Your task to perform on an android device: Clear the shopping cart on walmart. Image 0: 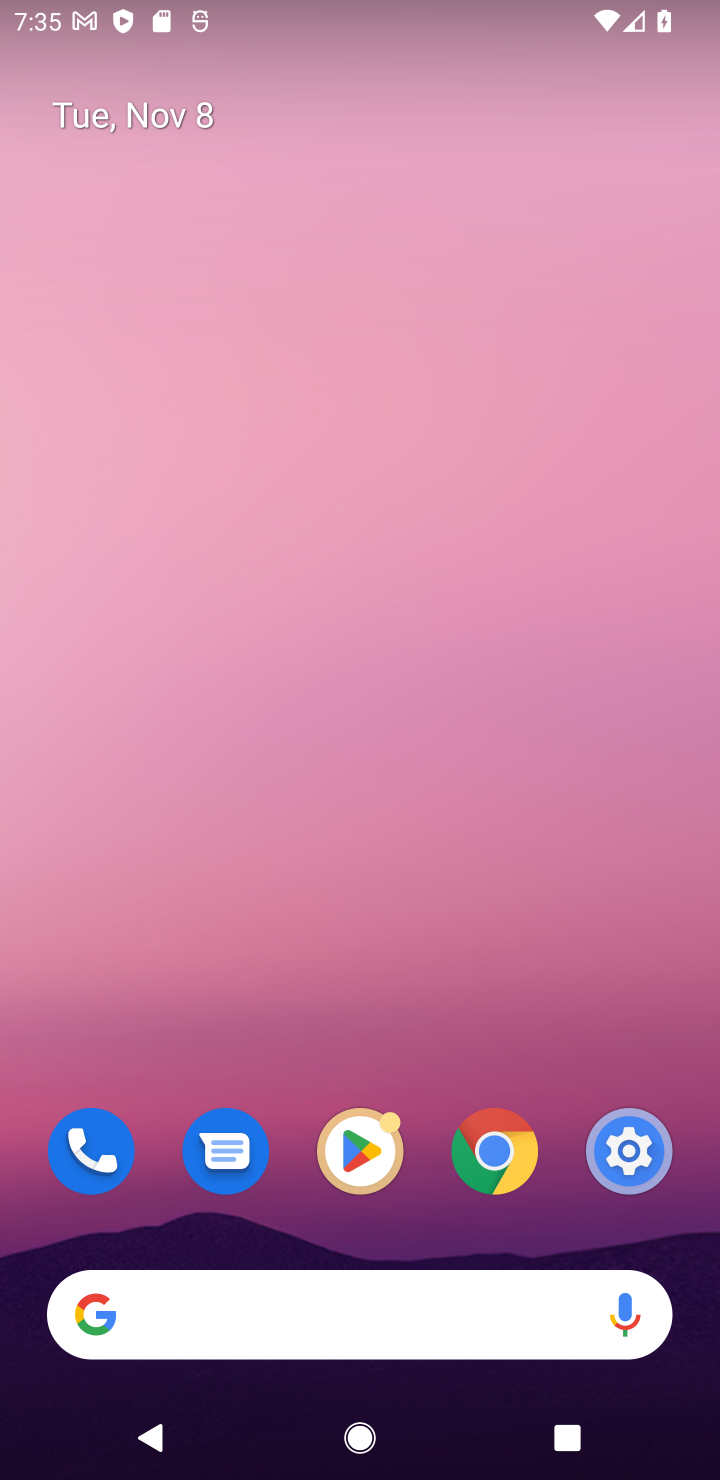
Step 0: click (411, 1302)
Your task to perform on an android device: Clear the shopping cart on walmart. Image 1: 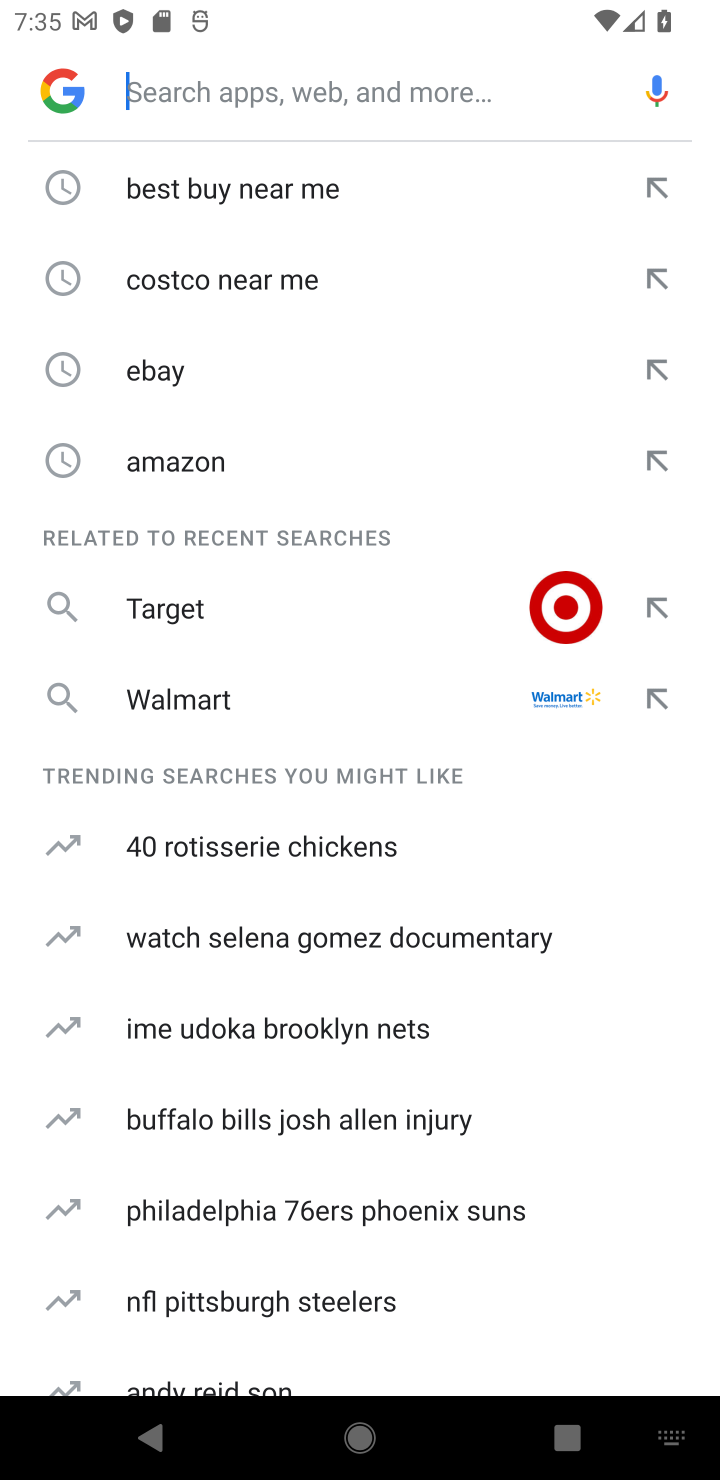
Step 1: click (477, 720)
Your task to perform on an android device: Clear the shopping cart on walmart. Image 2: 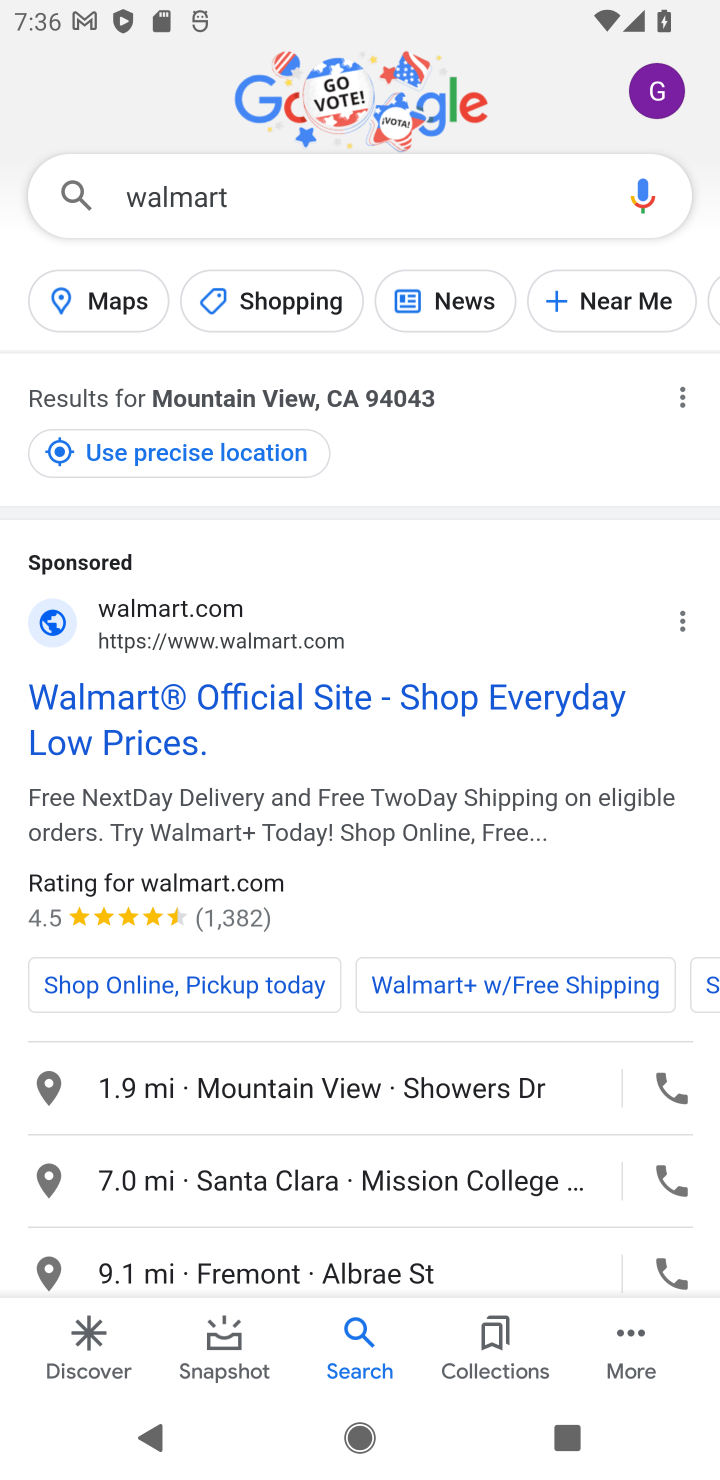
Step 2: click (352, 620)
Your task to perform on an android device: Clear the shopping cart on walmart. Image 3: 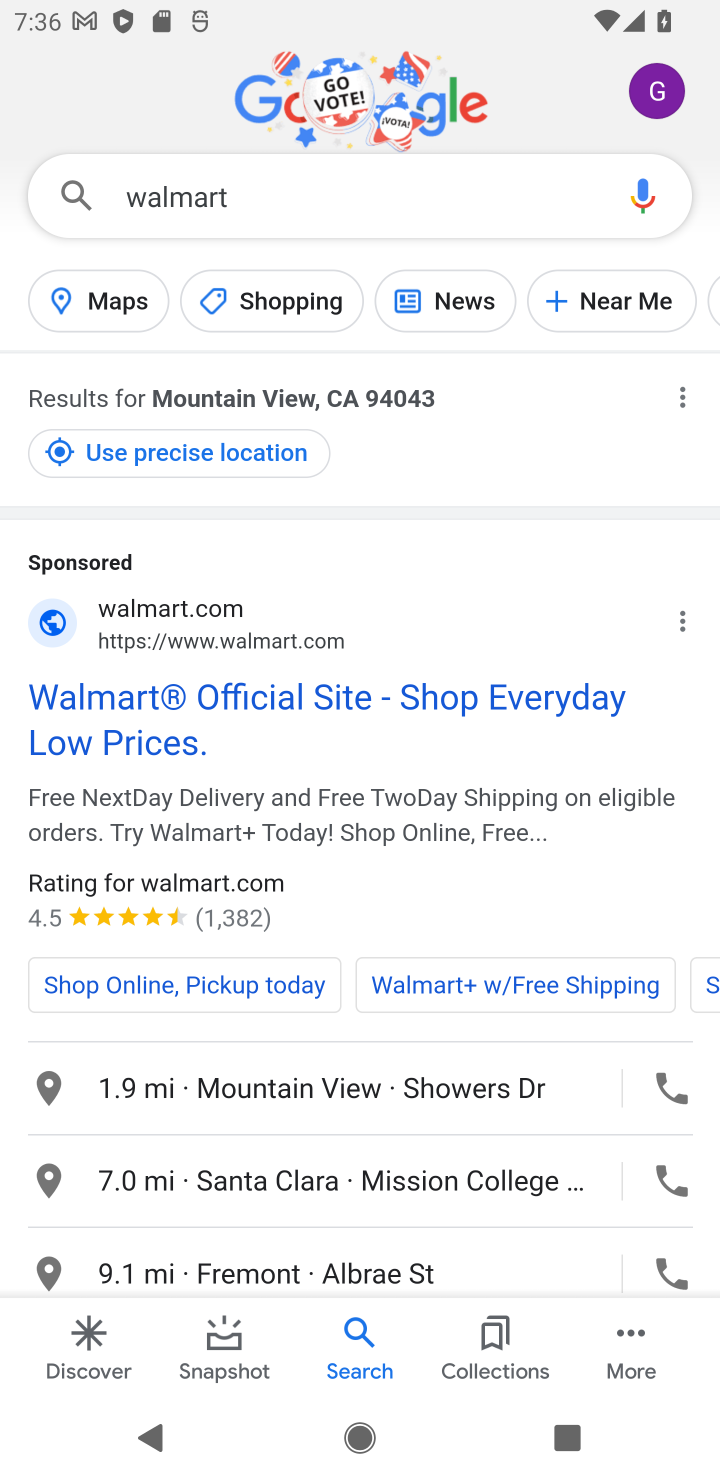
Step 3: task complete